Your task to perform on an android device: turn pop-ups on in chrome Image 0: 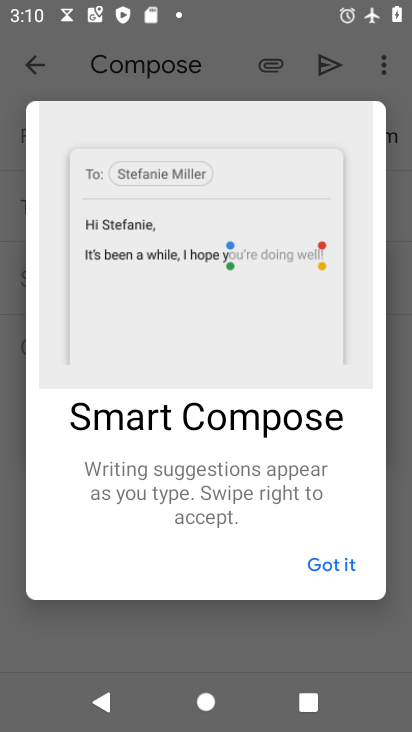
Step 0: press home button
Your task to perform on an android device: turn pop-ups on in chrome Image 1: 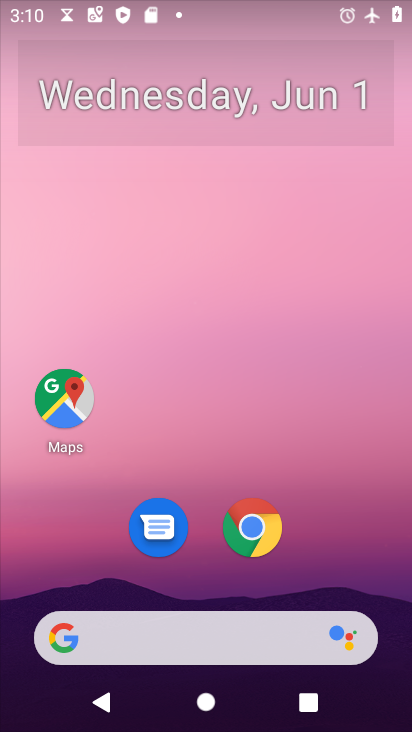
Step 1: click (252, 530)
Your task to perform on an android device: turn pop-ups on in chrome Image 2: 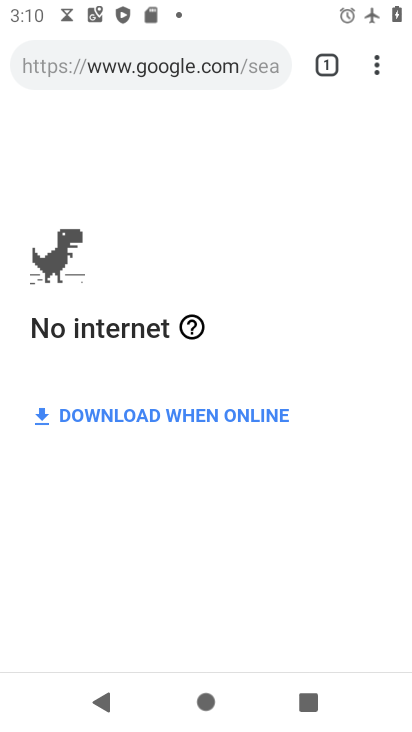
Step 2: click (375, 63)
Your task to perform on an android device: turn pop-ups on in chrome Image 3: 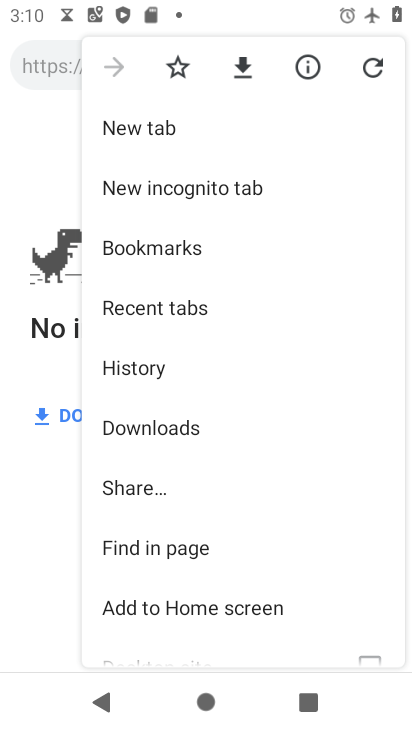
Step 3: drag from (196, 450) to (198, 384)
Your task to perform on an android device: turn pop-ups on in chrome Image 4: 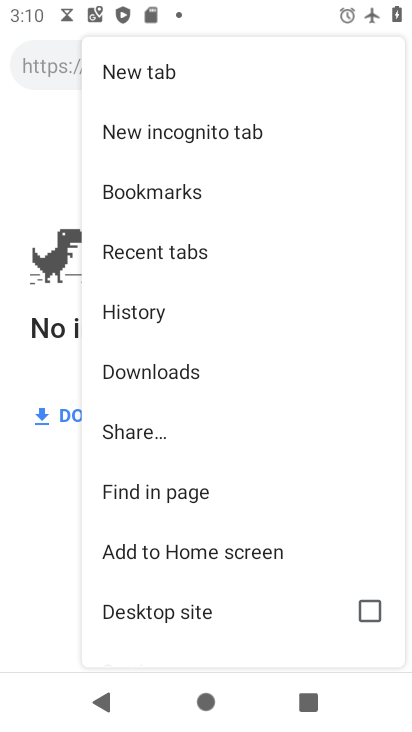
Step 4: drag from (156, 460) to (191, 403)
Your task to perform on an android device: turn pop-ups on in chrome Image 5: 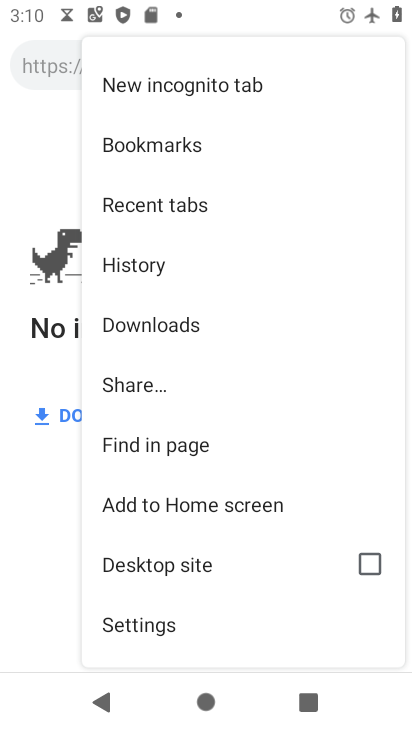
Step 5: drag from (152, 475) to (200, 401)
Your task to perform on an android device: turn pop-ups on in chrome Image 6: 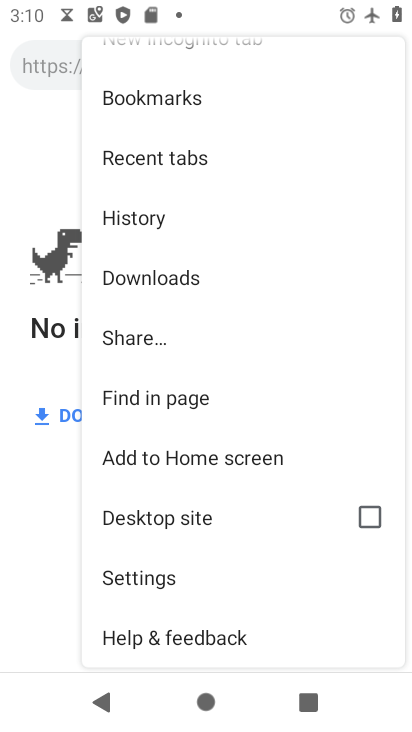
Step 6: drag from (150, 538) to (238, 415)
Your task to perform on an android device: turn pop-ups on in chrome Image 7: 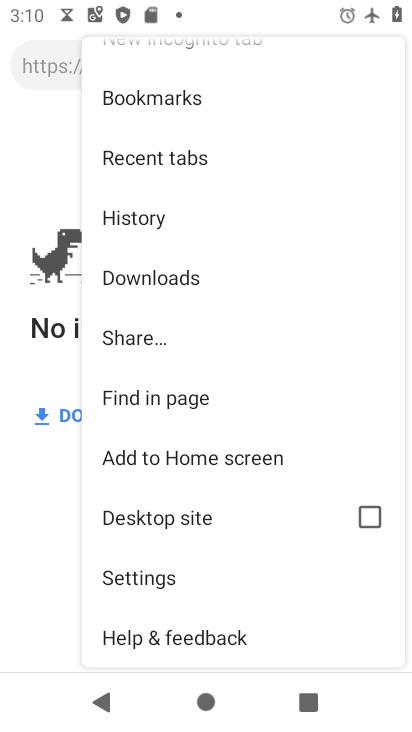
Step 7: click (164, 578)
Your task to perform on an android device: turn pop-ups on in chrome Image 8: 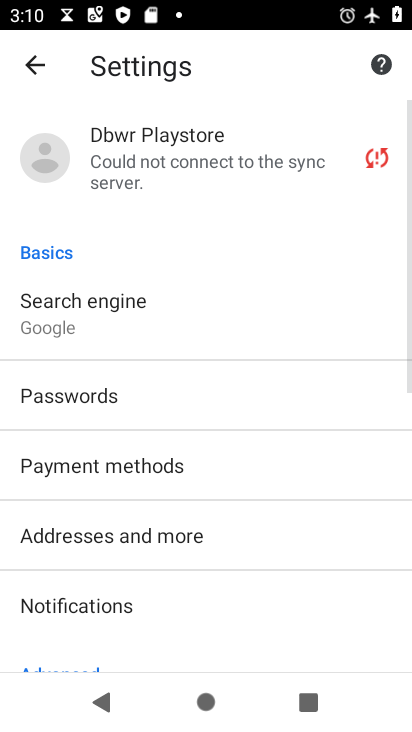
Step 8: drag from (155, 604) to (185, 492)
Your task to perform on an android device: turn pop-ups on in chrome Image 9: 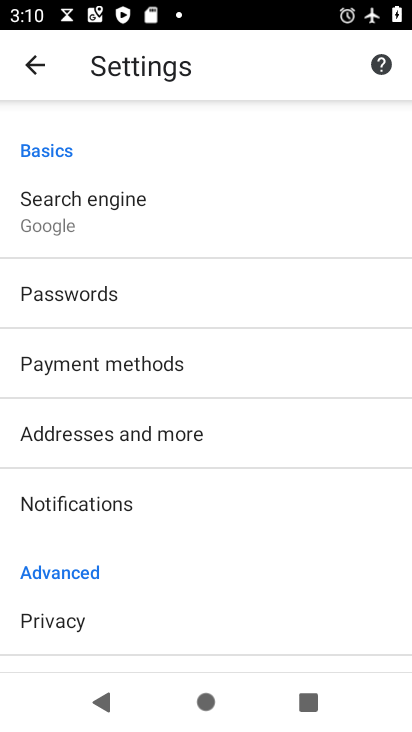
Step 9: drag from (156, 555) to (173, 496)
Your task to perform on an android device: turn pop-ups on in chrome Image 10: 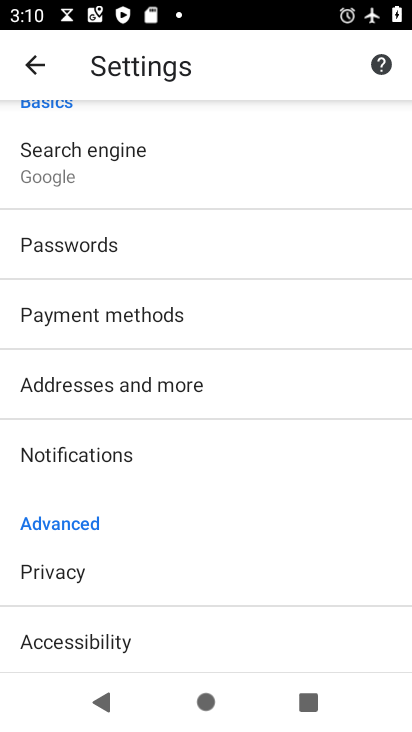
Step 10: drag from (118, 577) to (173, 480)
Your task to perform on an android device: turn pop-ups on in chrome Image 11: 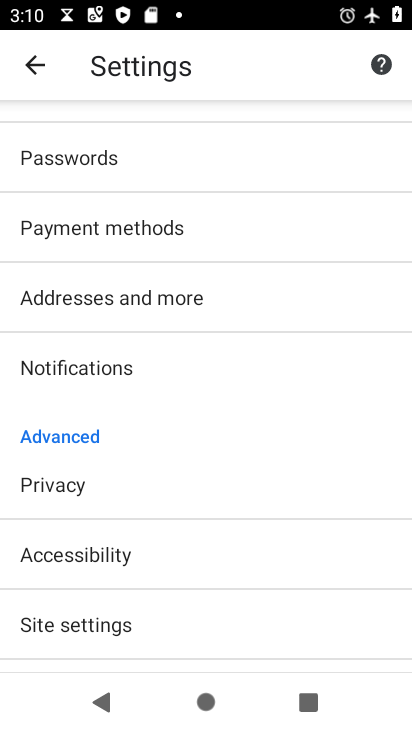
Step 11: drag from (150, 557) to (195, 470)
Your task to perform on an android device: turn pop-ups on in chrome Image 12: 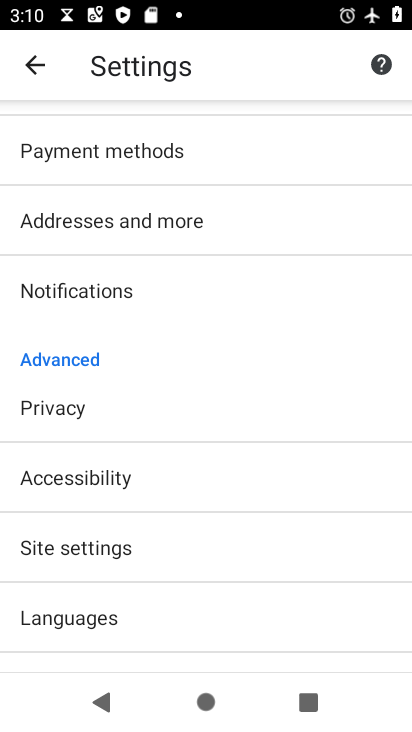
Step 12: drag from (167, 544) to (212, 462)
Your task to perform on an android device: turn pop-ups on in chrome Image 13: 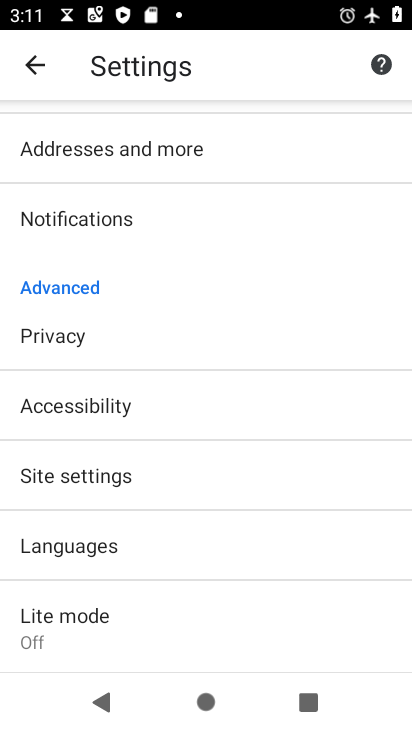
Step 13: click (133, 473)
Your task to perform on an android device: turn pop-ups on in chrome Image 14: 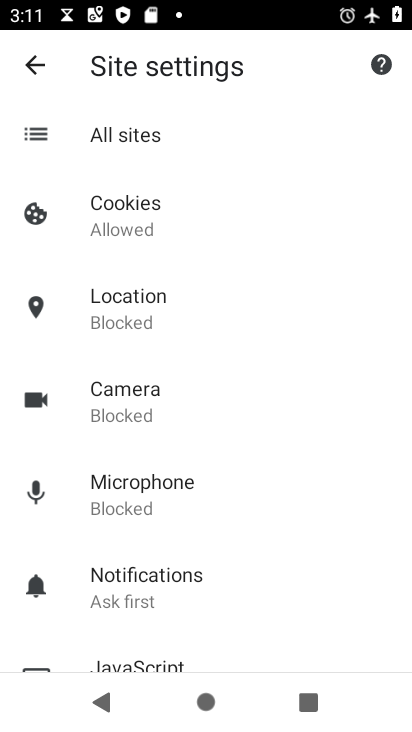
Step 14: drag from (177, 560) to (194, 425)
Your task to perform on an android device: turn pop-ups on in chrome Image 15: 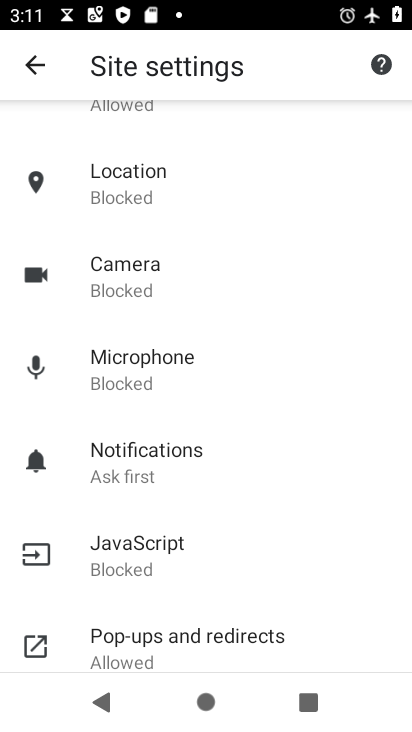
Step 15: drag from (177, 506) to (221, 411)
Your task to perform on an android device: turn pop-ups on in chrome Image 16: 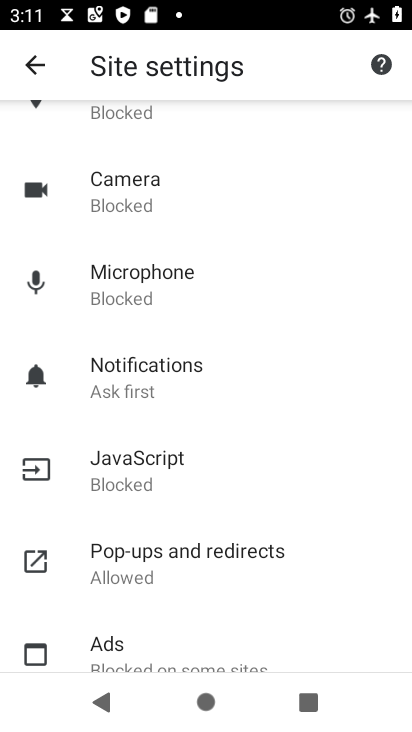
Step 16: click (184, 551)
Your task to perform on an android device: turn pop-ups on in chrome Image 17: 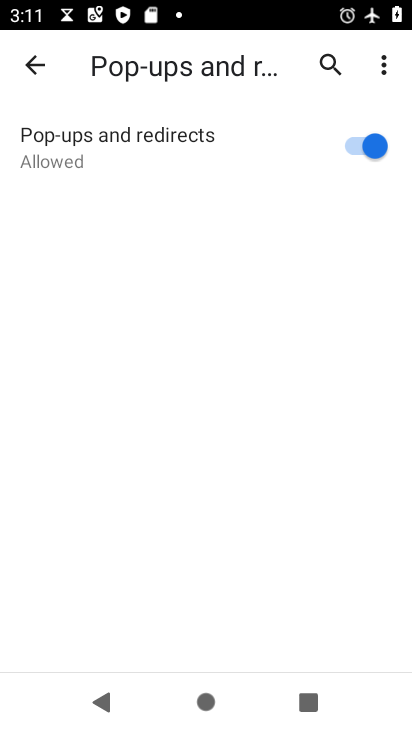
Step 17: task complete